Your task to perform on an android device: check android version Image 0: 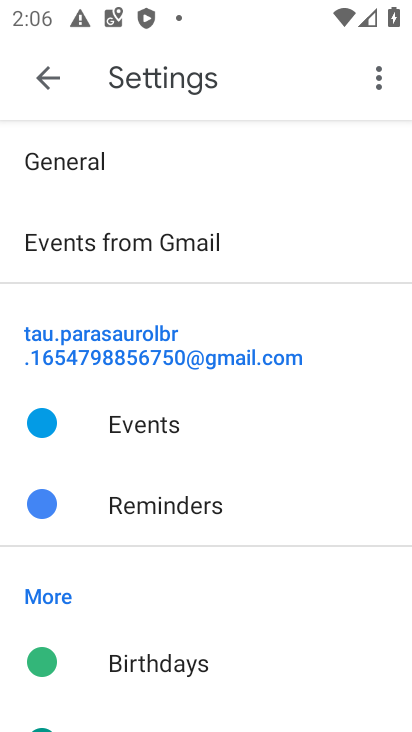
Step 0: press home button
Your task to perform on an android device: check android version Image 1: 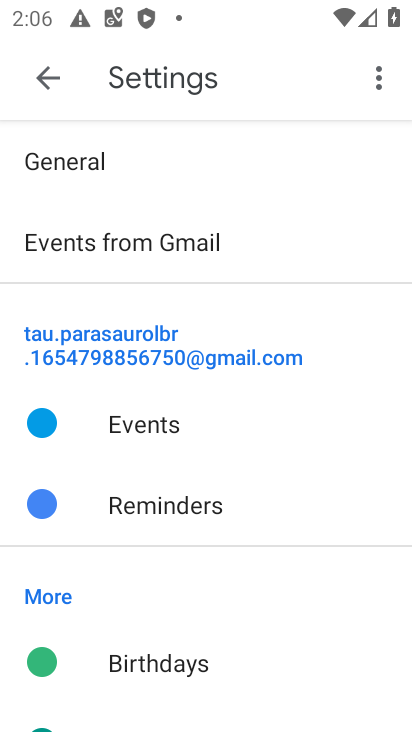
Step 1: press home button
Your task to perform on an android device: check android version Image 2: 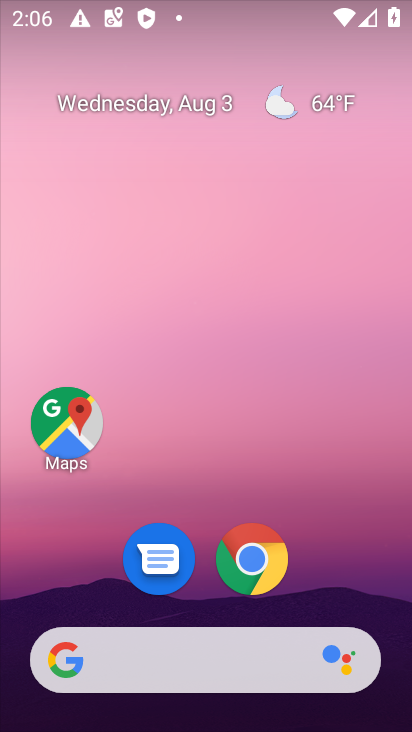
Step 2: drag from (204, 599) to (209, 111)
Your task to perform on an android device: check android version Image 3: 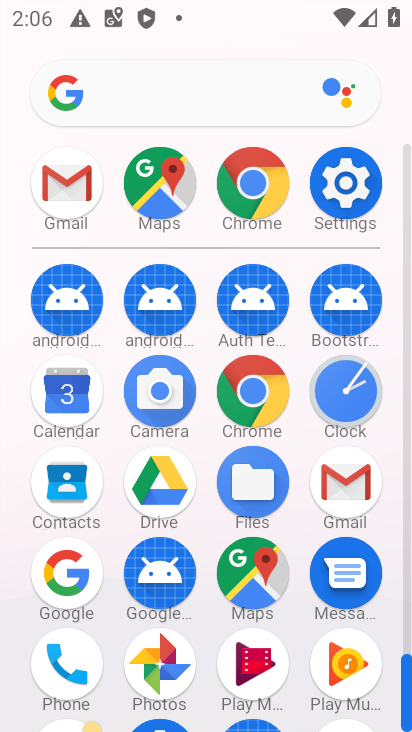
Step 3: click (346, 180)
Your task to perform on an android device: check android version Image 4: 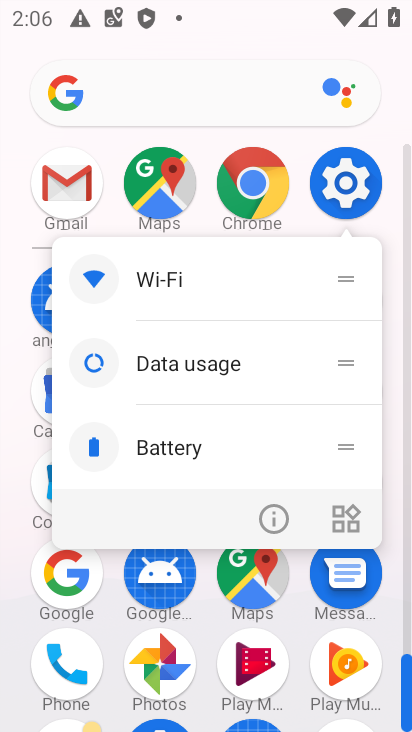
Step 4: click (334, 172)
Your task to perform on an android device: check android version Image 5: 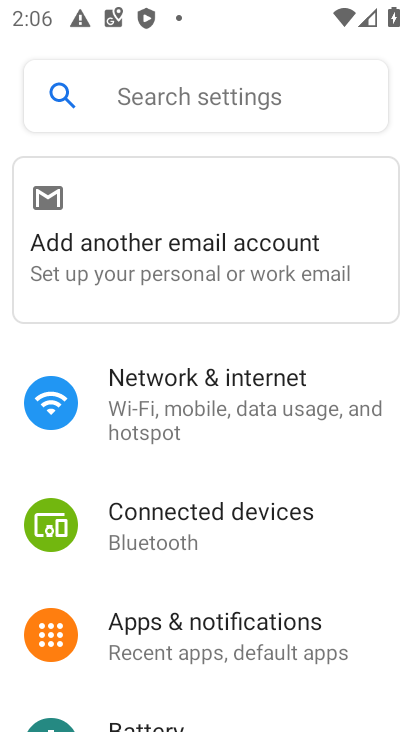
Step 5: drag from (202, 699) to (216, 272)
Your task to perform on an android device: check android version Image 6: 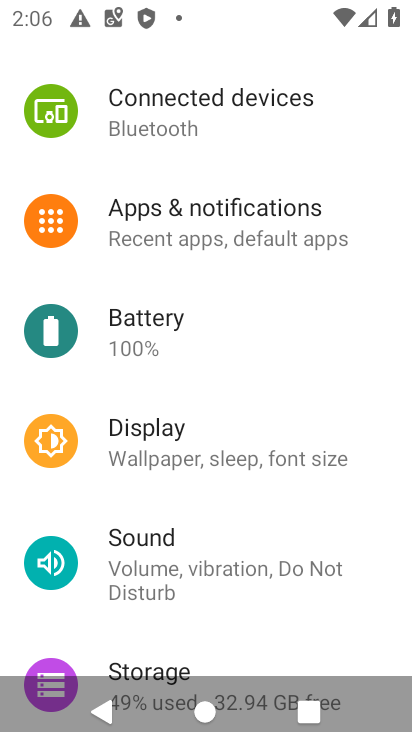
Step 6: drag from (206, 641) to (206, 191)
Your task to perform on an android device: check android version Image 7: 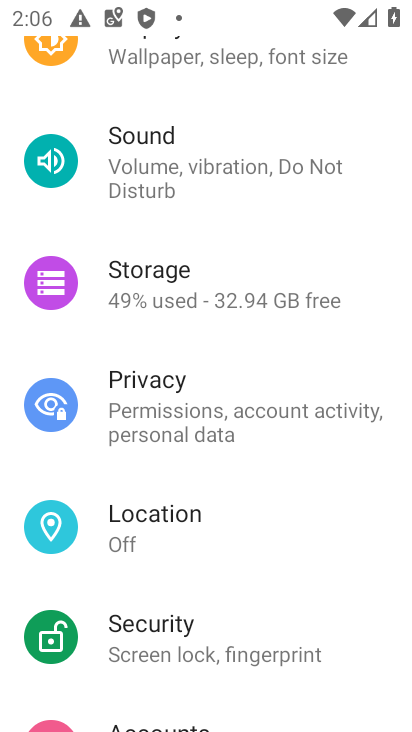
Step 7: drag from (184, 678) to (184, 263)
Your task to perform on an android device: check android version Image 8: 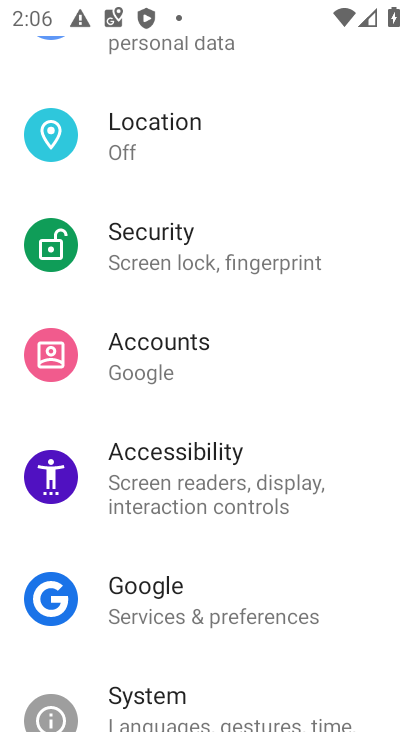
Step 8: drag from (200, 678) to (226, 278)
Your task to perform on an android device: check android version Image 9: 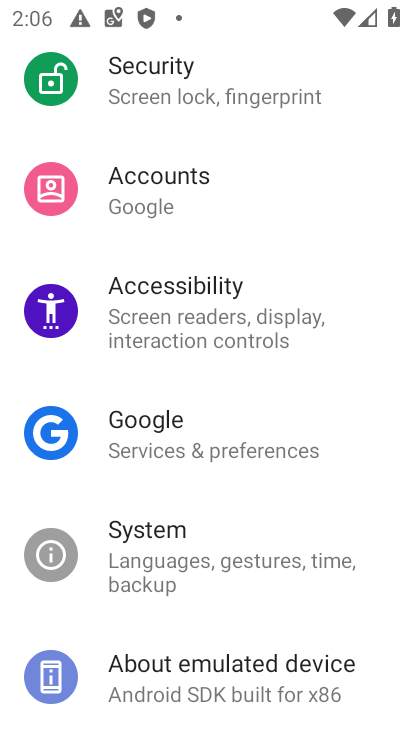
Step 9: drag from (151, 660) to (120, 274)
Your task to perform on an android device: check android version Image 10: 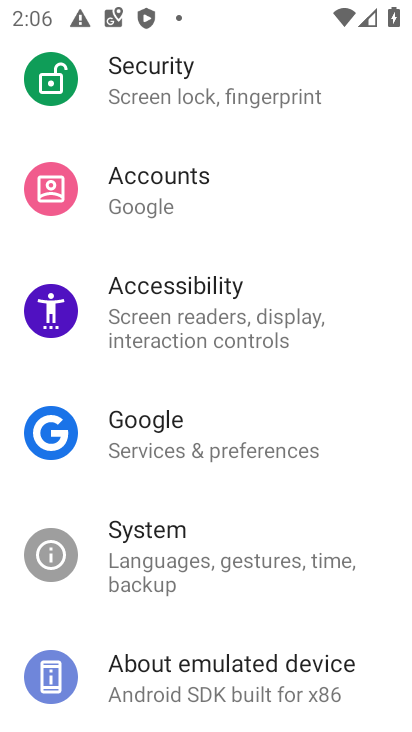
Step 10: drag from (171, 669) to (215, 139)
Your task to perform on an android device: check android version Image 11: 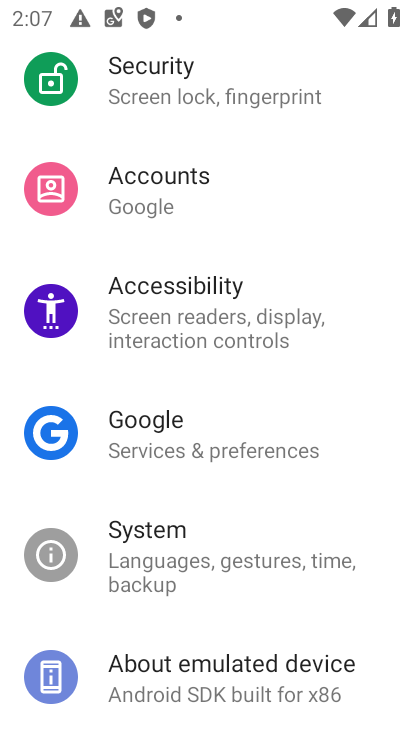
Step 11: drag from (189, 668) to (179, 307)
Your task to perform on an android device: check android version Image 12: 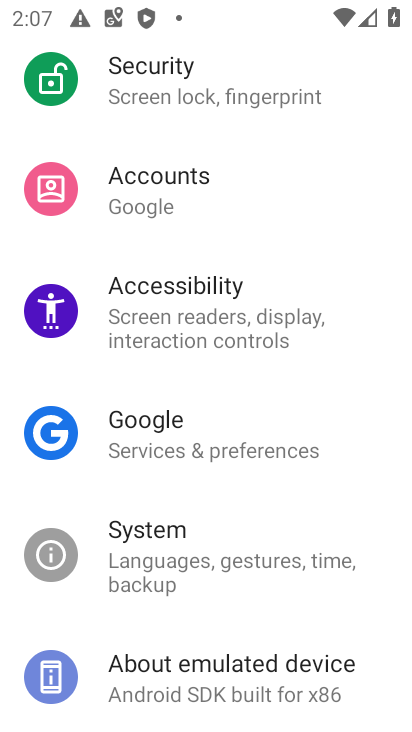
Step 12: drag from (163, 651) to (141, 254)
Your task to perform on an android device: check android version Image 13: 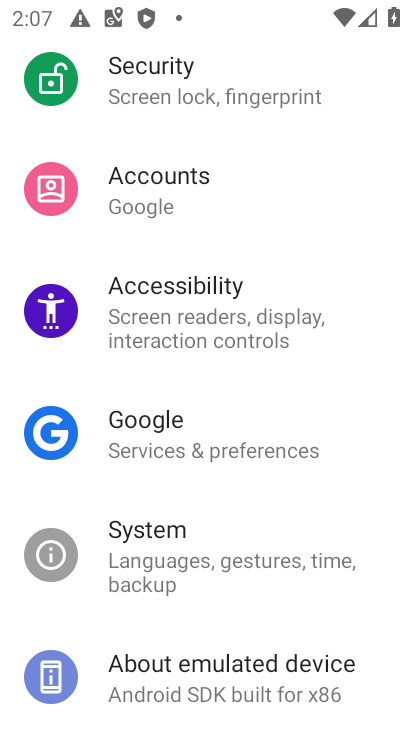
Step 13: click (186, 672)
Your task to perform on an android device: check android version Image 14: 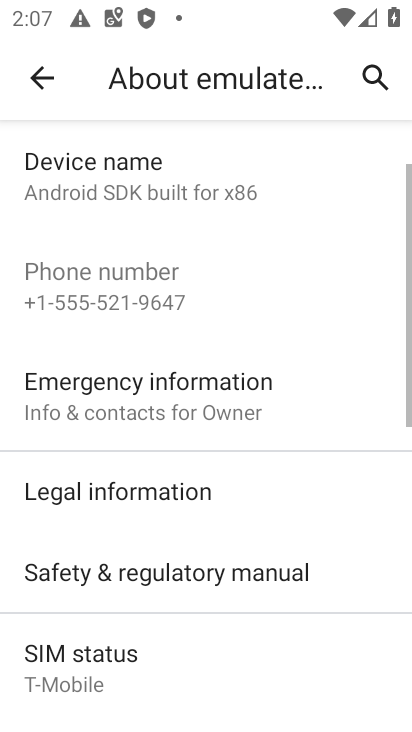
Step 14: drag from (173, 648) to (173, 287)
Your task to perform on an android device: check android version Image 15: 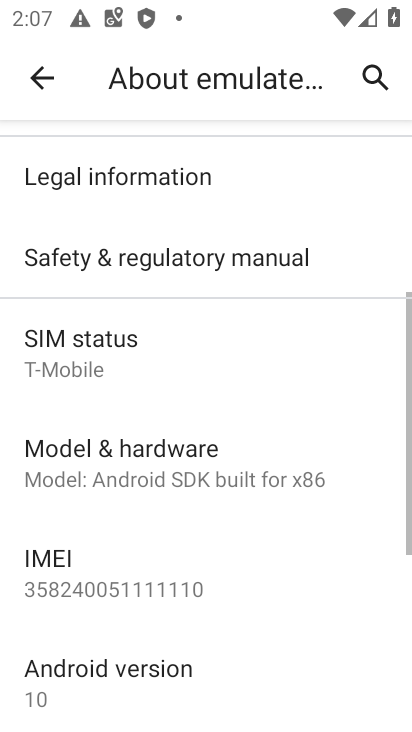
Step 15: click (129, 670)
Your task to perform on an android device: check android version Image 16: 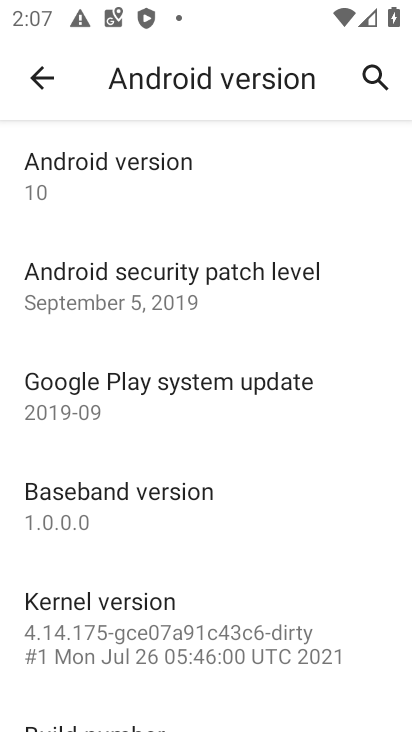
Step 16: task complete